Your task to perform on an android device: Show me recent news Image 0: 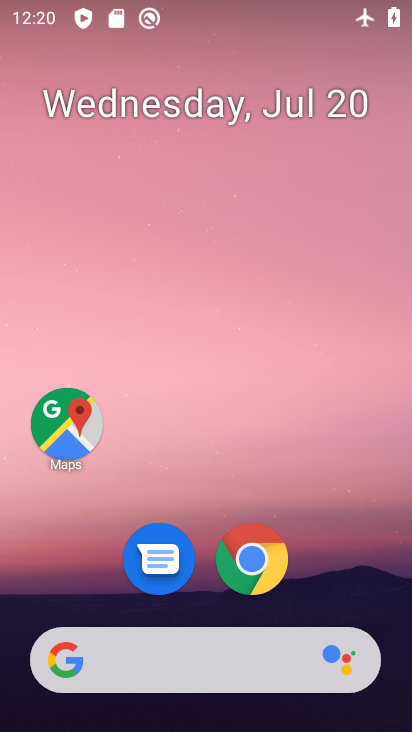
Step 0: drag from (25, 274) to (393, 361)
Your task to perform on an android device: Show me recent news Image 1: 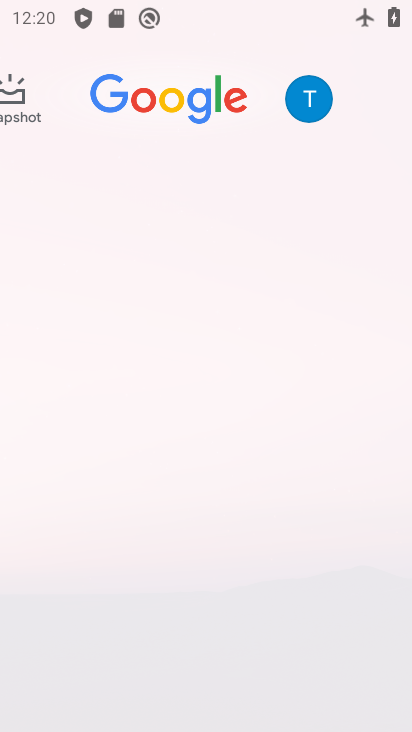
Step 1: click (186, 367)
Your task to perform on an android device: Show me recent news Image 2: 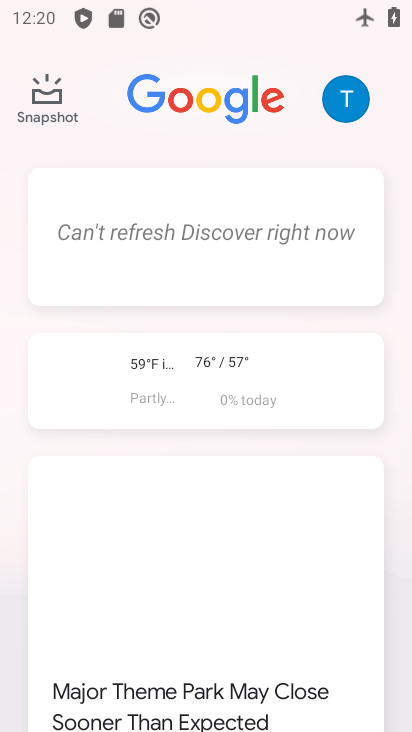
Step 2: task complete